Your task to perform on an android device: add a contact Image 0: 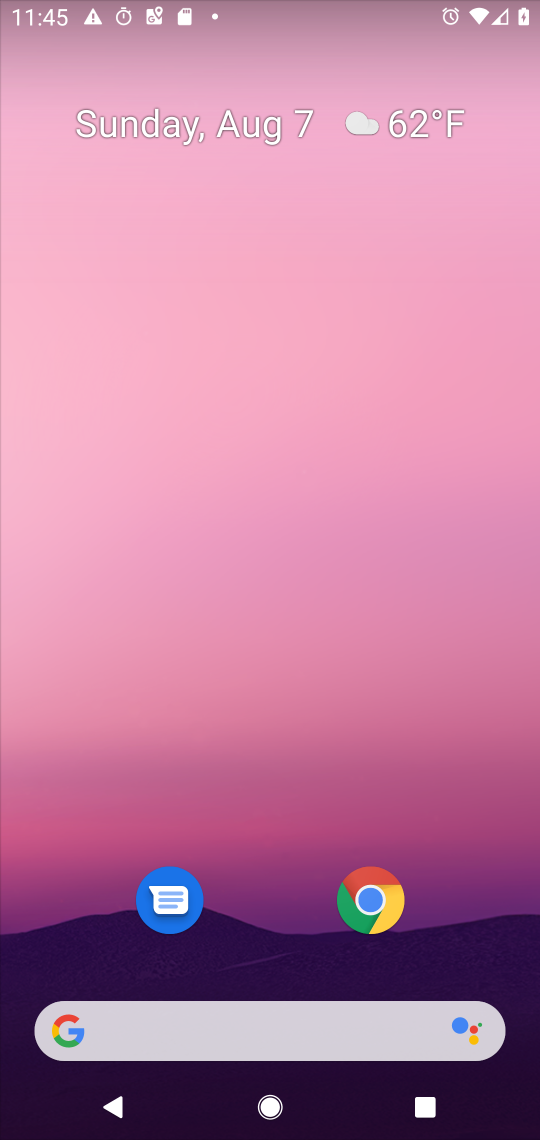
Step 0: drag from (282, 974) to (247, 158)
Your task to perform on an android device: add a contact Image 1: 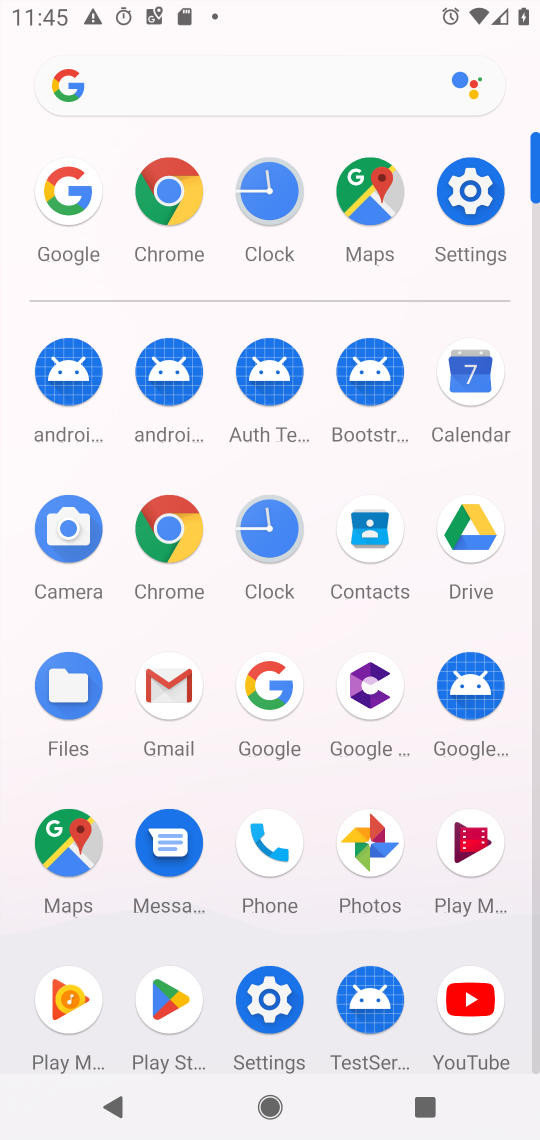
Step 1: click (369, 523)
Your task to perform on an android device: add a contact Image 2: 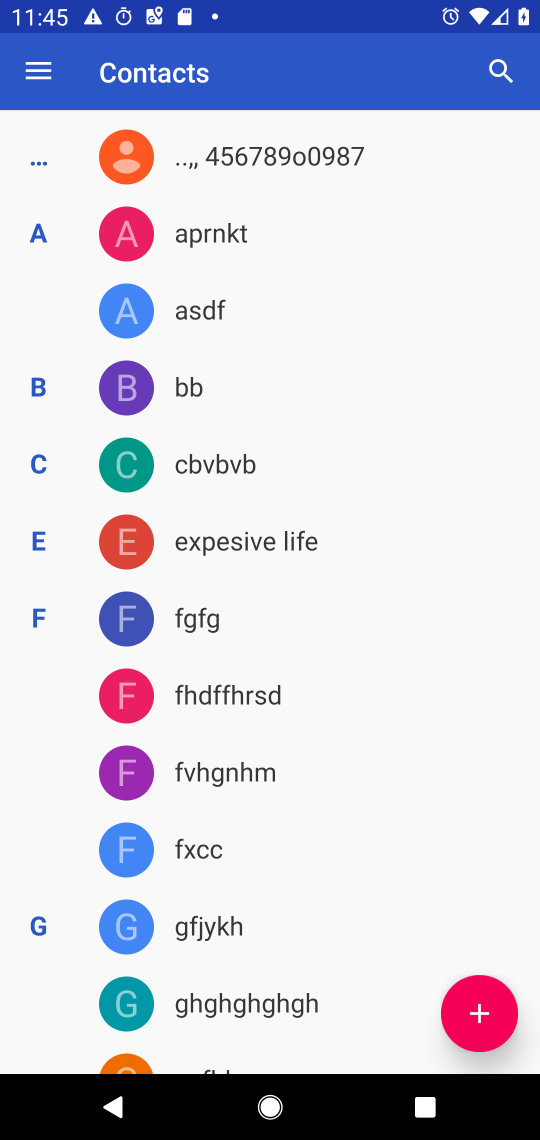
Step 2: click (480, 1005)
Your task to perform on an android device: add a contact Image 3: 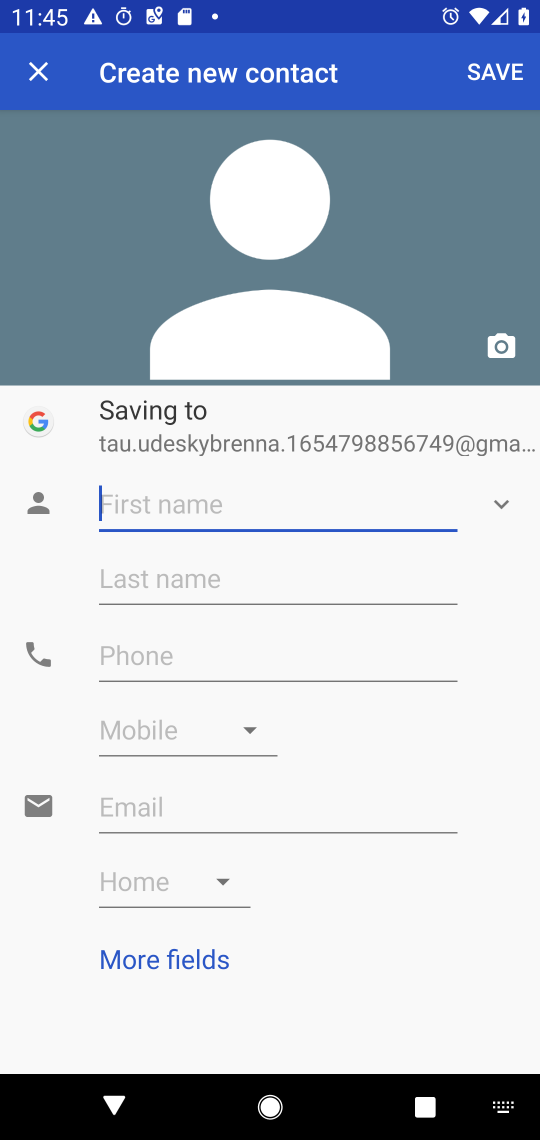
Step 3: type "xjcsudfsj"
Your task to perform on an android device: add a contact Image 4: 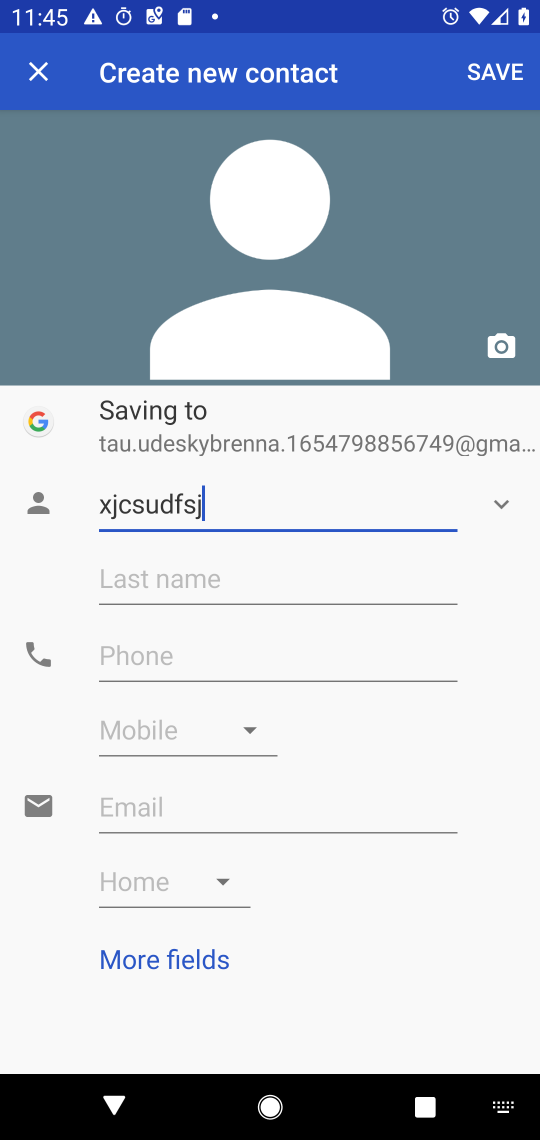
Step 4: click (500, 77)
Your task to perform on an android device: add a contact Image 5: 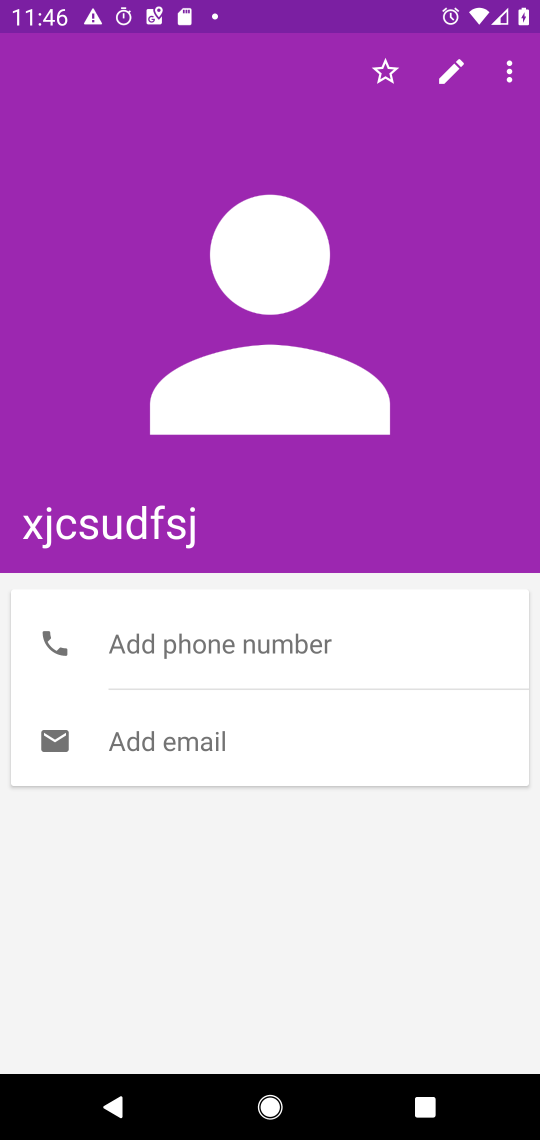
Step 5: task complete